Your task to perform on an android device: turn on the 24-hour format for clock Image 0: 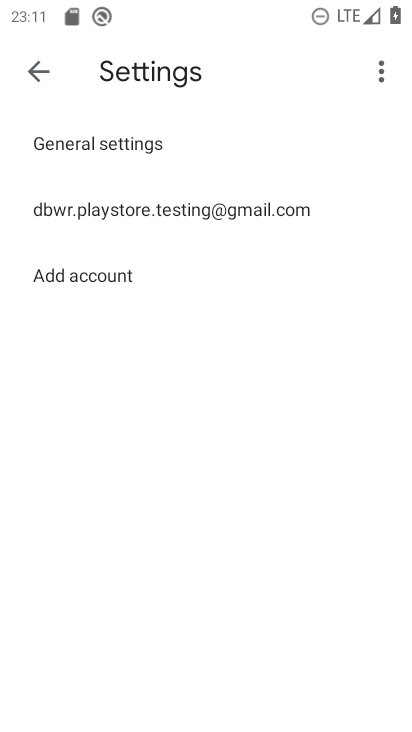
Step 0: press home button
Your task to perform on an android device: turn on the 24-hour format for clock Image 1: 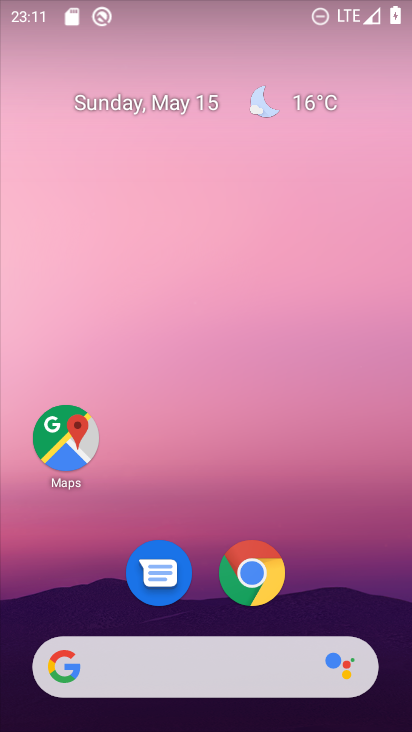
Step 1: drag from (365, 559) to (337, 112)
Your task to perform on an android device: turn on the 24-hour format for clock Image 2: 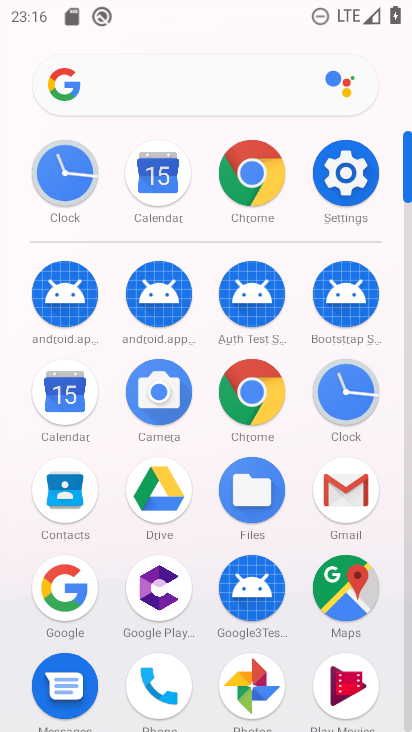
Step 2: click (355, 389)
Your task to perform on an android device: turn on the 24-hour format for clock Image 3: 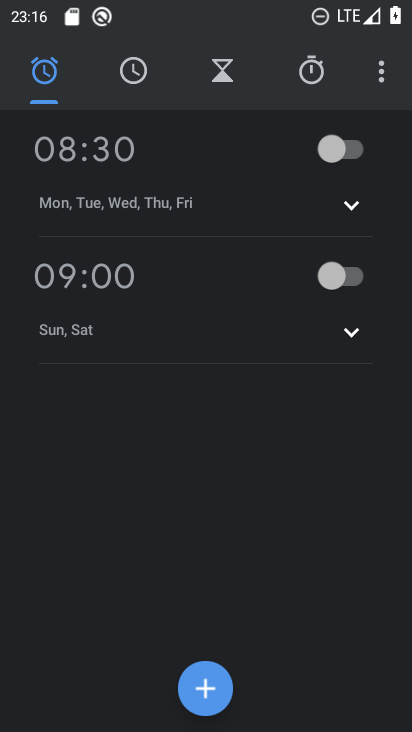
Step 3: click (381, 74)
Your task to perform on an android device: turn on the 24-hour format for clock Image 4: 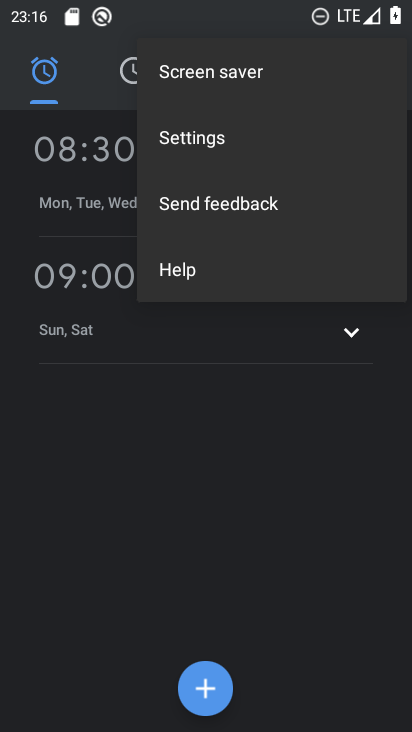
Step 4: click (202, 152)
Your task to perform on an android device: turn on the 24-hour format for clock Image 5: 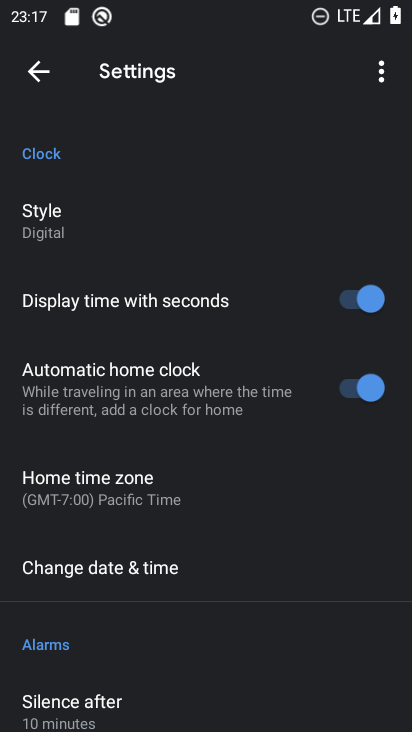
Step 5: click (224, 581)
Your task to perform on an android device: turn on the 24-hour format for clock Image 6: 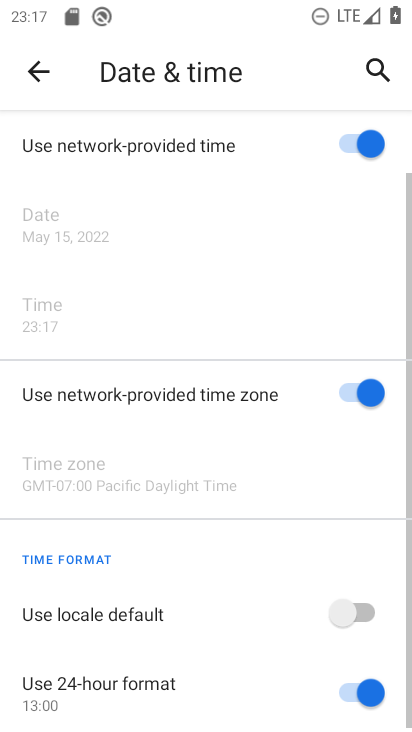
Step 6: task complete